Your task to perform on an android device: Go to Google maps Image 0: 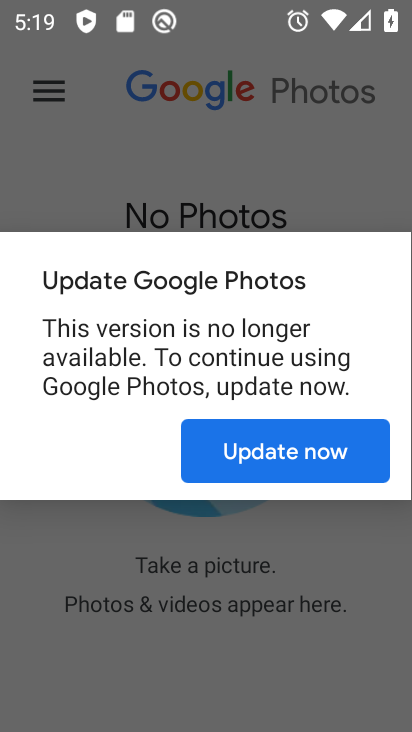
Step 0: press home button
Your task to perform on an android device: Go to Google maps Image 1: 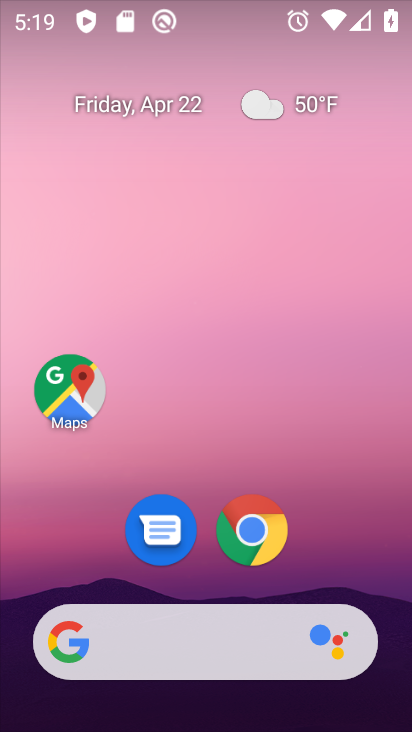
Step 1: drag from (290, 535) to (315, 143)
Your task to perform on an android device: Go to Google maps Image 2: 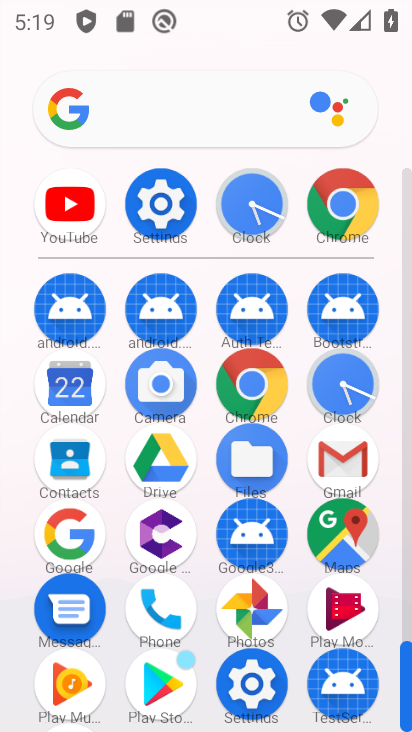
Step 2: click (348, 543)
Your task to perform on an android device: Go to Google maps Image 3: 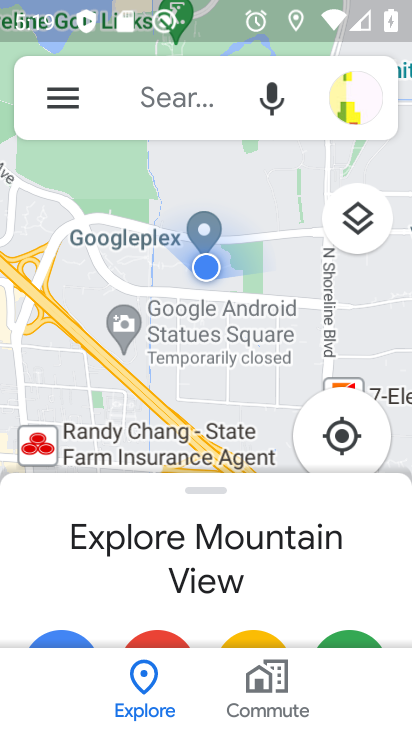
Step 3: task complete